Your task to perform on an android device: Open Chrome and go to settings Image 0: 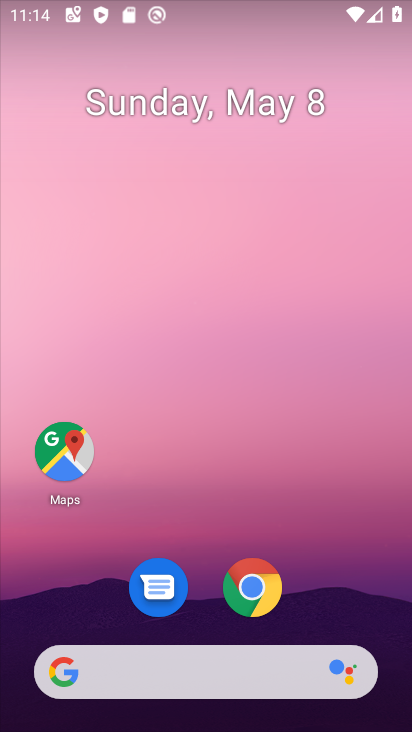
Step 0: drag from (377, 682) to (216, 91)
Your task to perform on an android device: Open Chrome and go to settings Image 1: 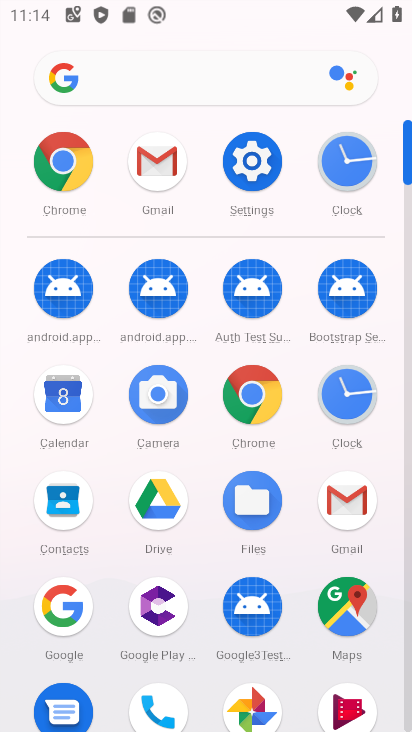
Step 1: click (246, 148)
Your task to perform on an android device: Open Chrome and go to settings Image 2: 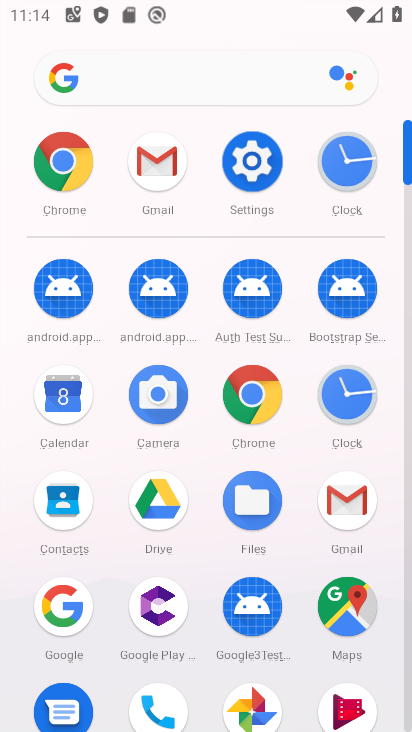
Step 2: click (246, 148)
Your task to perform on an android device: Open Chrome and go to settings Image 3: 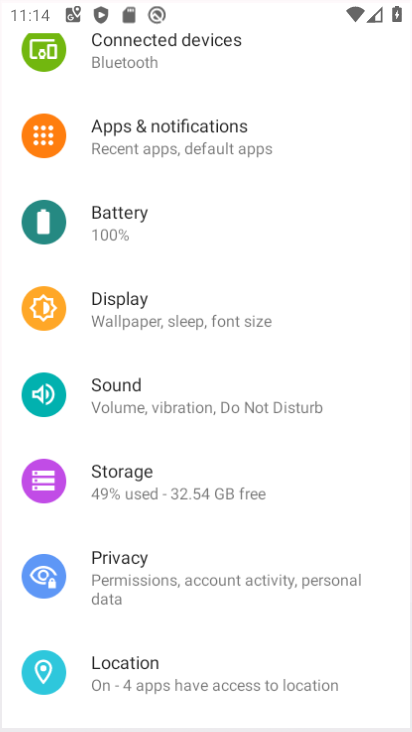
Step 3: click (246, 148)
Your task to perform on an android device: Open Chrome and go to settings Image 4: 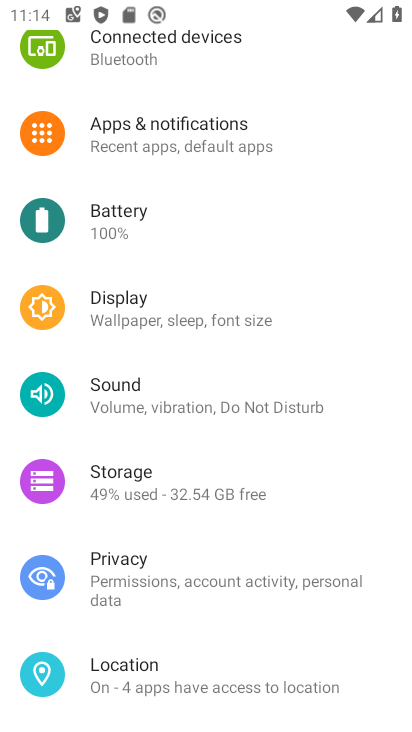
Step 4: task complete